Your task to perform on an android device: refresh tabs in the chrome app Image 0: 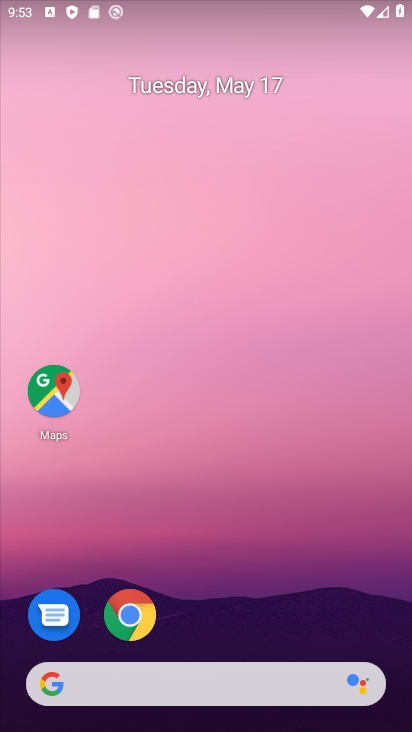
Step 0: click (138, 613)
Your task to perform on an android device: refresh tabs in the chrome app Image 1: 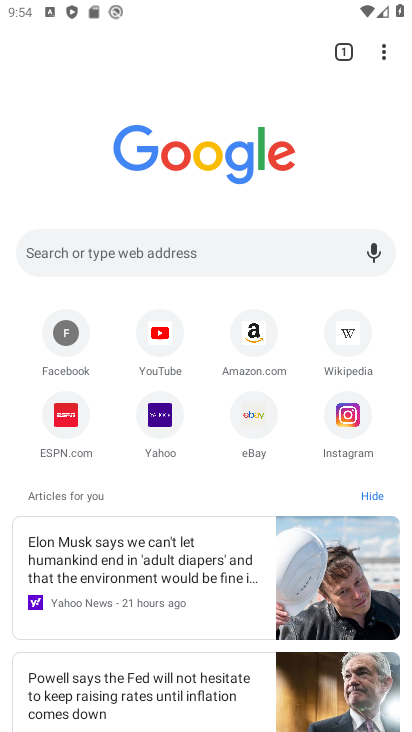
Step 1: click (383, 57)
Your task to perform on an android device: refresh tabs in the chrome app Image 2: 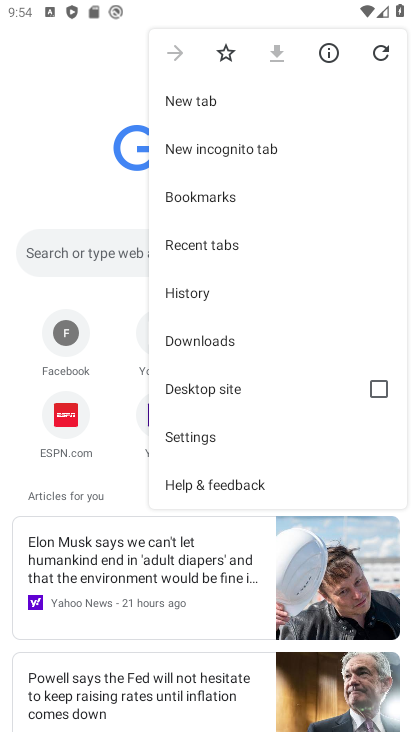
Step 2: click (378, 49)
Your task to perform on an android device: refresh tabs in the chrome app Image 3: 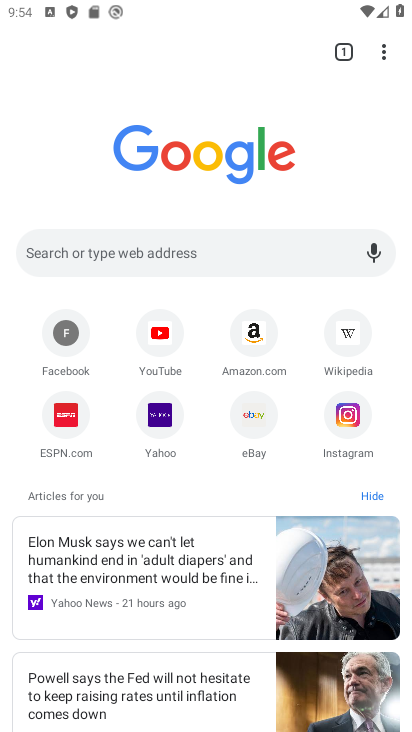
Step 3: task complete